Your task to perform on an android device: Open Yahoo.com Image 0: 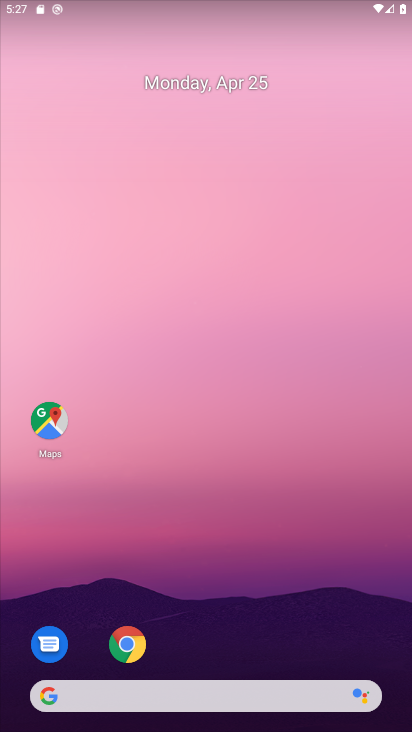
Step 0: click (128, 642)
Your task to perform on an android device: Open Yahoo.com Image 1: 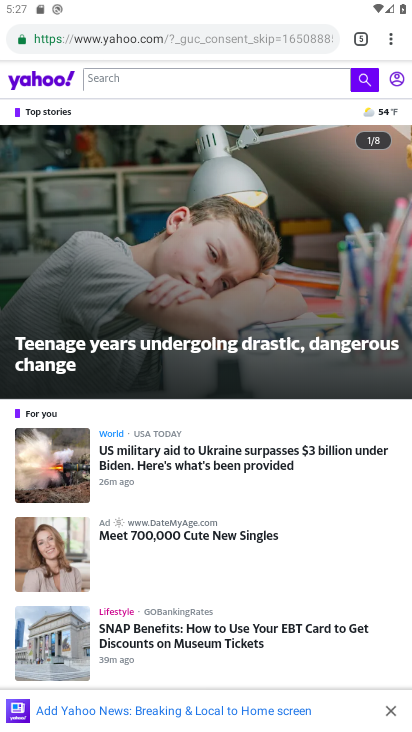
Step 1: task complete